Your task to perform on an android device: Search for pizza restaurants on Maps Image 0: 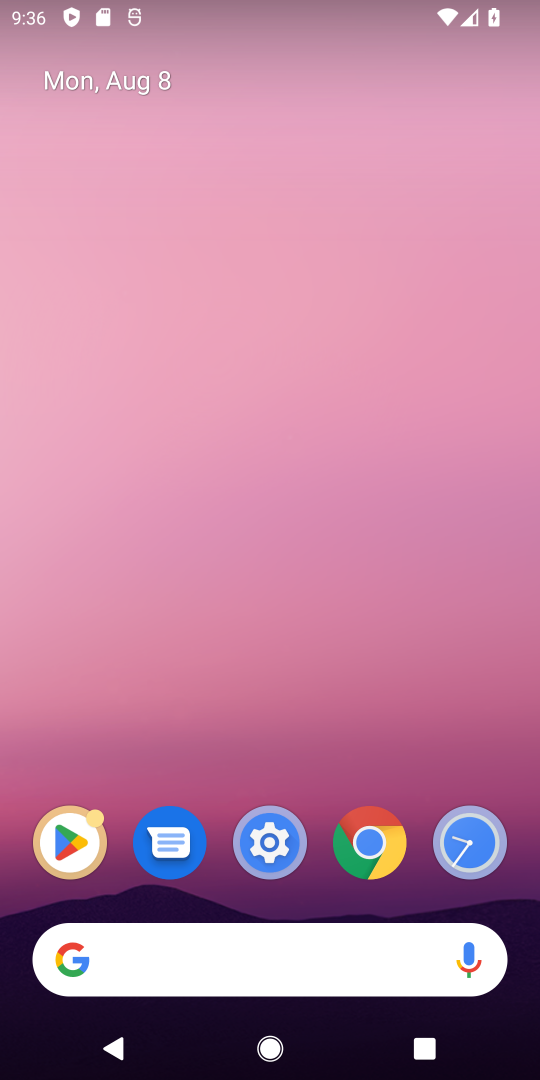
Step 0: drag from (311, 791) to (178, 0)
Your task to perform on an android device: Search for pizza restaurants on Maps Image 1: 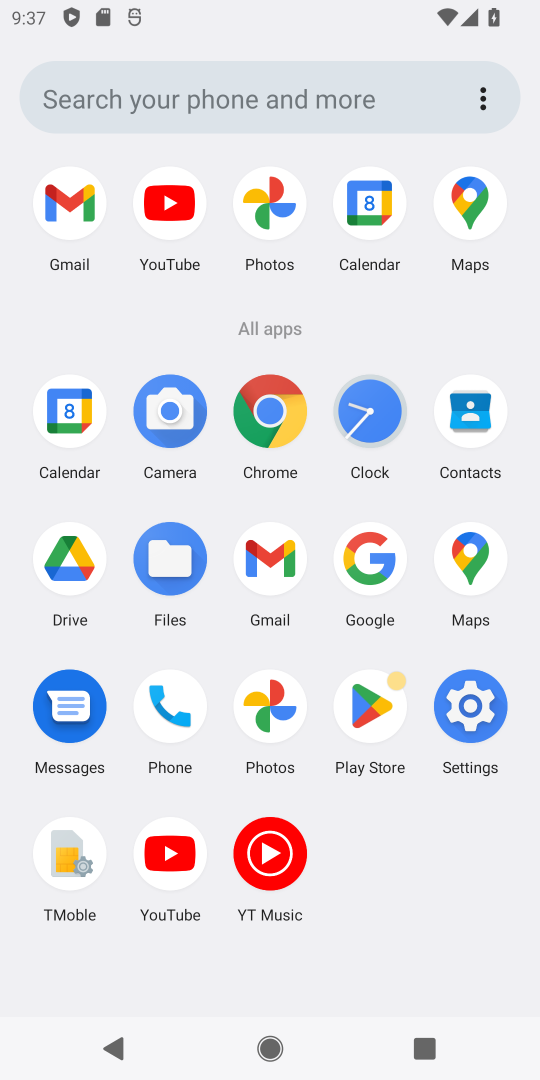
Step 1: click (450, 571)
Your task to perform on an android device: Search for pizza restaurants on Maps Image 2: 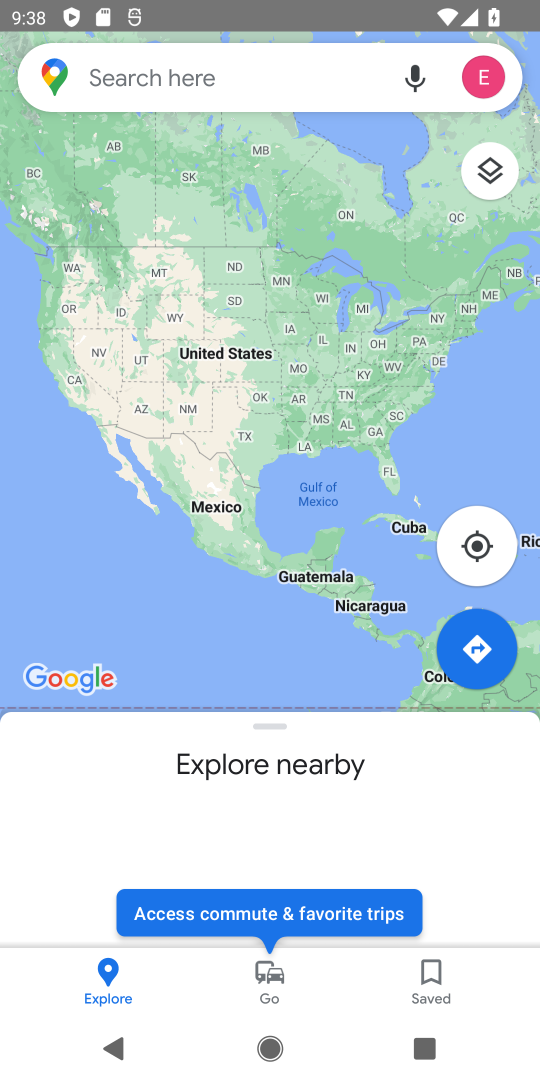
Step 2: click (181, 66)
Your task to perform on an android device: Search for pizza restaurants on Maps Image 3: 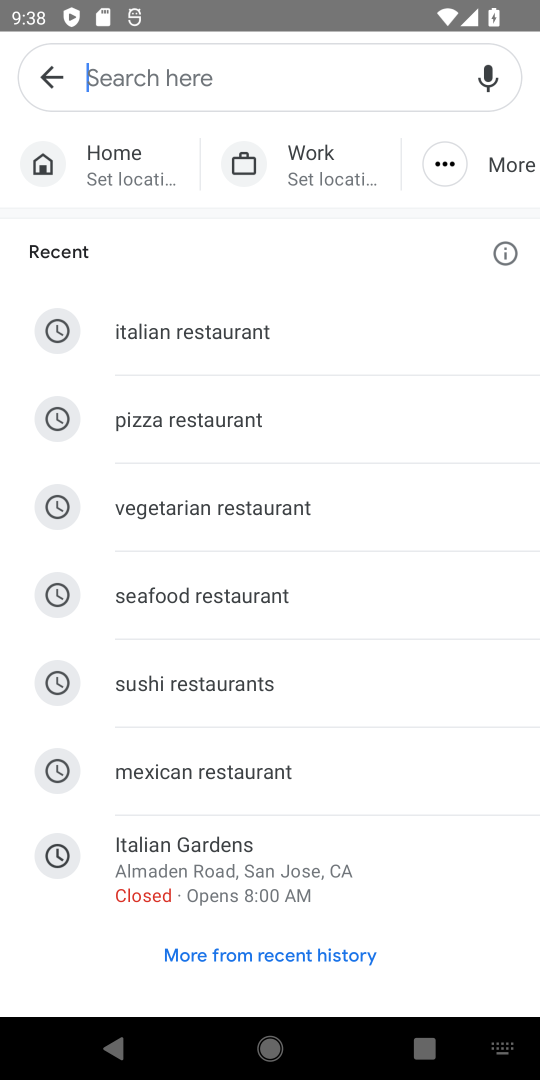
Step 3: click (233, 406)
Your task to perform on an android device: Search for pizza restaurants on Maps Image 4: 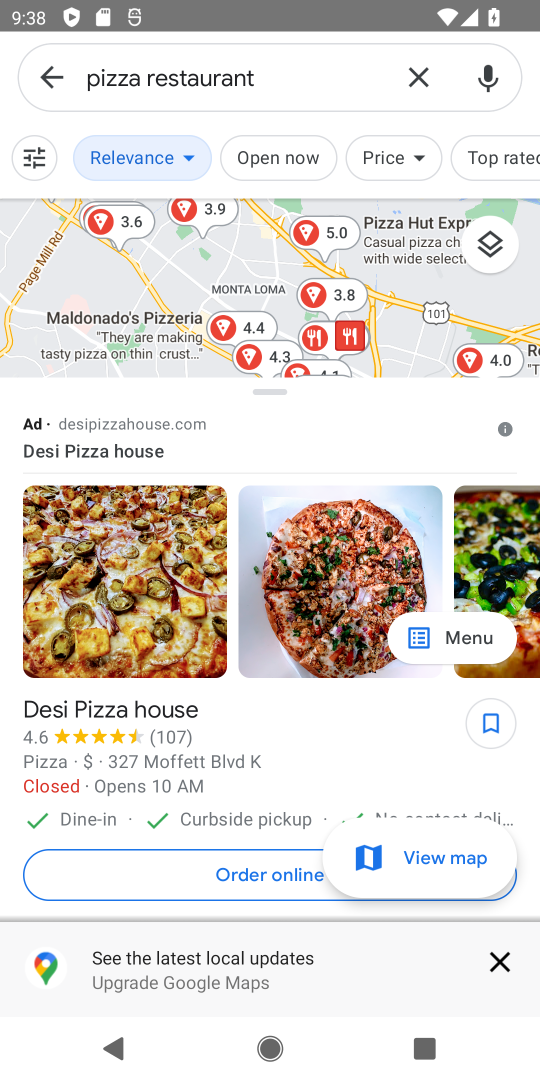
Step 4: task complete